Your task to perform on an android device: turn on translation in the chrome app Image 0: 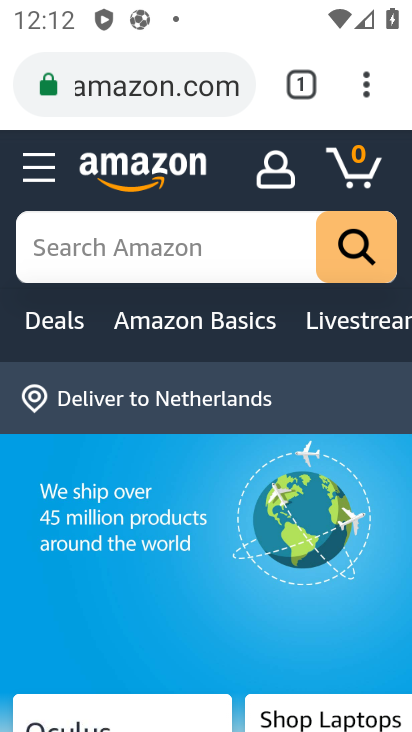
Step 0: drag from (362, 78) to (152, 604)
Your task to perform on an android device: turn on translation in the chrome app Image 1: 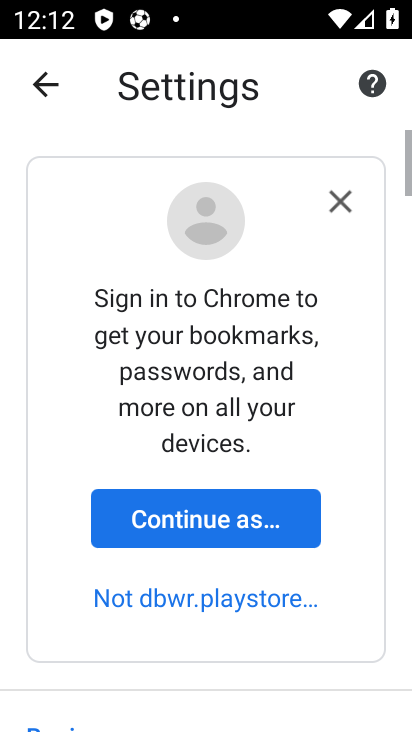
Step 1: drag from (202, 640) to (226, 74)
Your task to perform on an android device: turn on translation in the chrome app Image 2: 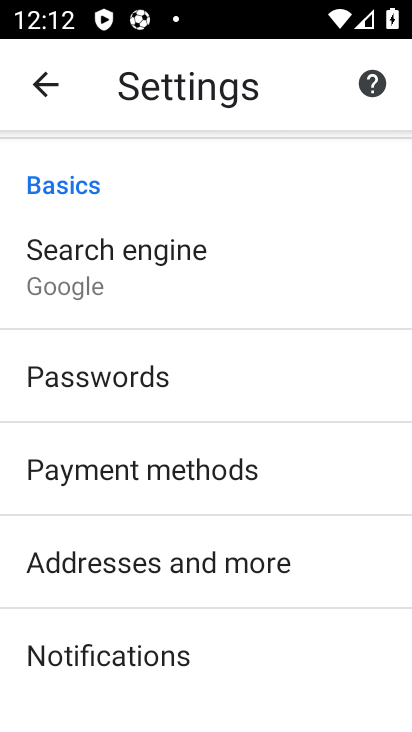
Step 2: drag from (148, 657) to (185, 79)
Your task to perform on an android device: turn on translation in the chrome app Image 3: 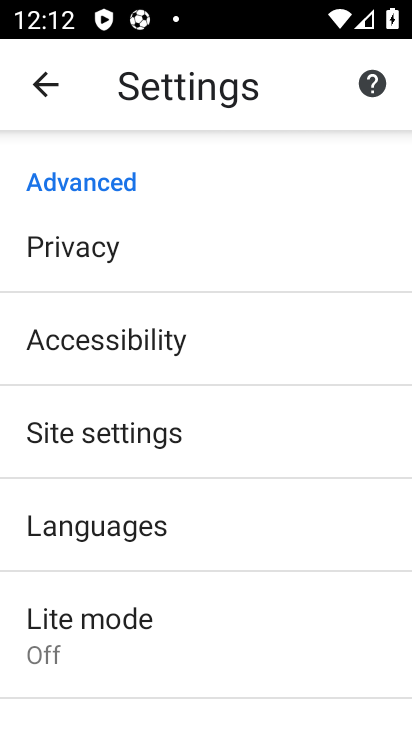
Step 3: drag from (189, 651) to (214, 598)
Your task to perform on an android device: turn on translation in the chrome app Image 4: 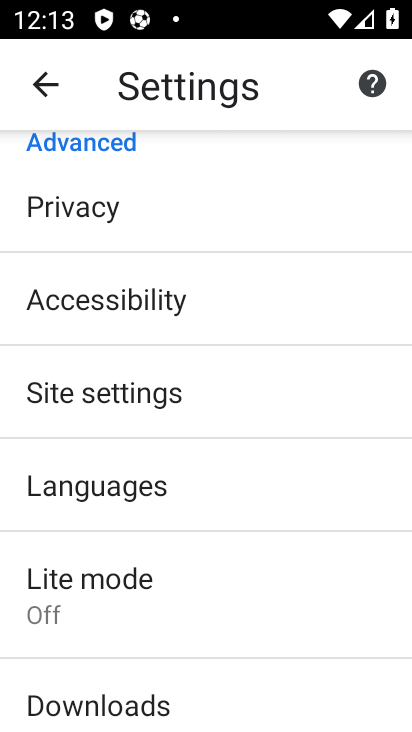
Step 4: click (137, 470)
Your task to perform on an android device: turn on translation in the chrome app Image 5: 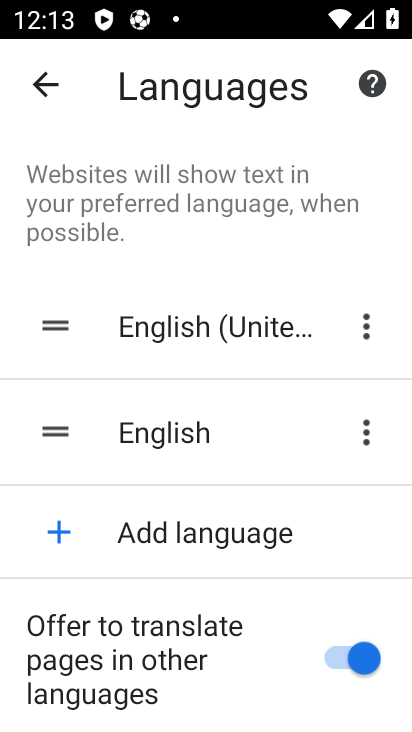
Step 5: task complete